Your task to perform on an android device: change the clock display to digital Image 0: 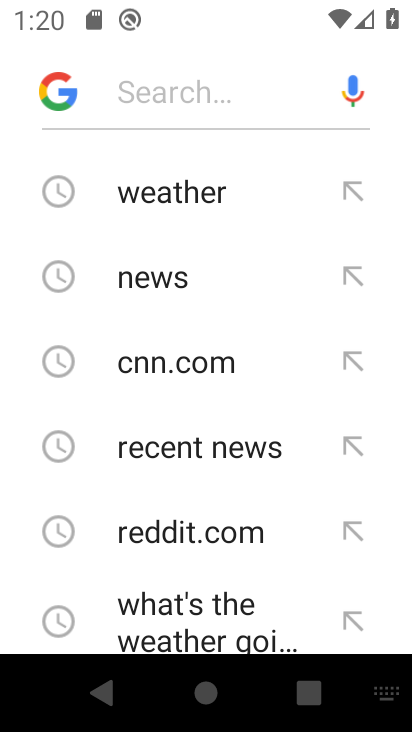
Step 0: press home button
Your task to perform on an android device: change the clock display to digital Image 1: 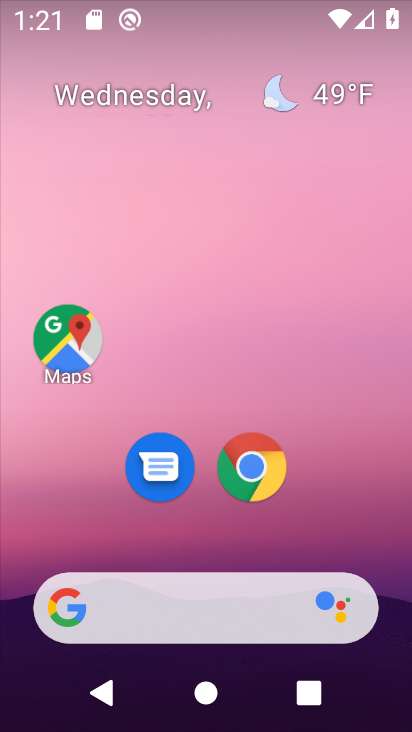
Step 1: drag from (395, 608) to (354, 213)
Your task to perform on an android device: change the clock display to digital Image 2: 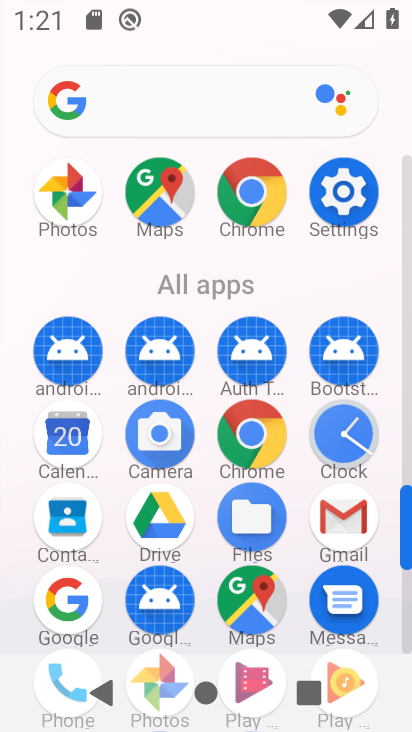
Step 2: click (405, 630)
Your task to perform on an android device: change the clock display to digital Image 3: 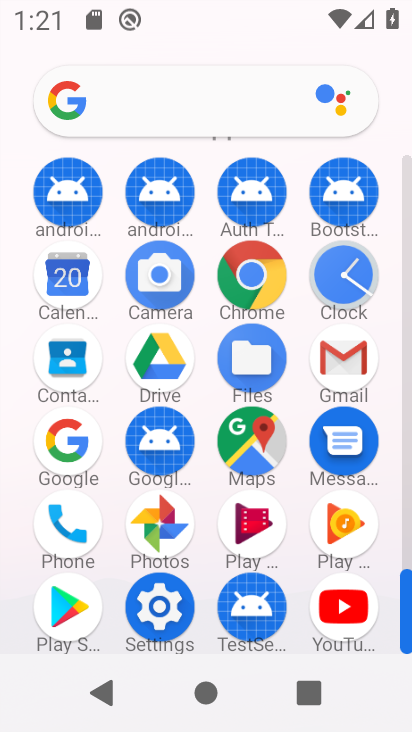
Step 3: click (340, 270)
Your task to perform on an android device: change the clock display to digital Image 4: 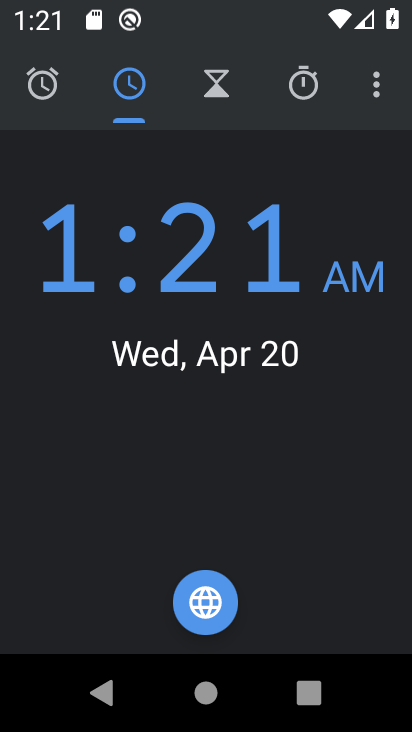
Step 4: click (376, 91)
Your task to perform on an android device: change the clock display to digital Image 5: 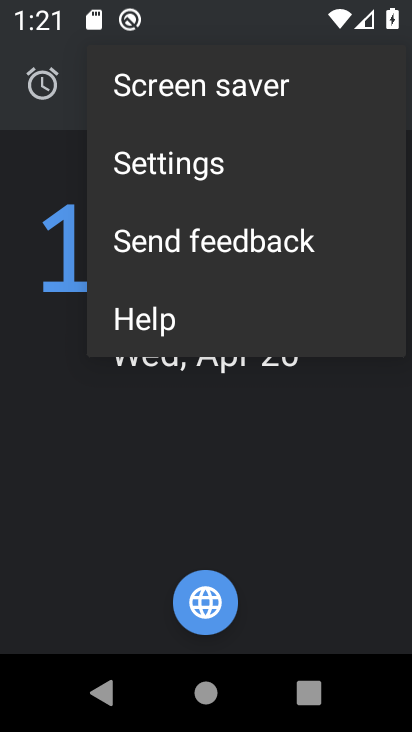
Step 5: click (155, 166)
Your task to perform on an android device: change the clock display to digital Image 6: 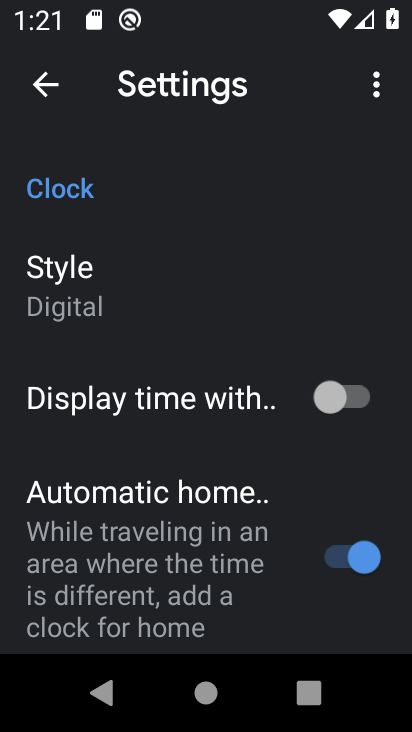
Step 6: task complete